Your task to perform on an android device: Go to internet settings Image 0: 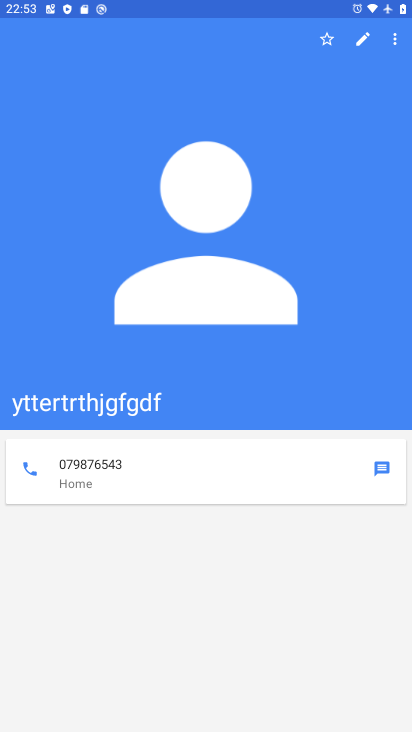
Step 0: press home button
Your task to perform on an android device: Go to internet settings Image 1: 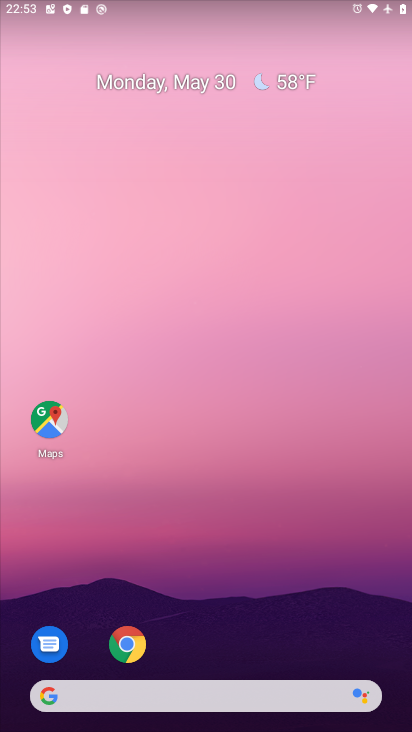
Step 1: drag from (394, 673) to (266, 143)
Your task to perform on an android device: Go to internet settings Image 2: 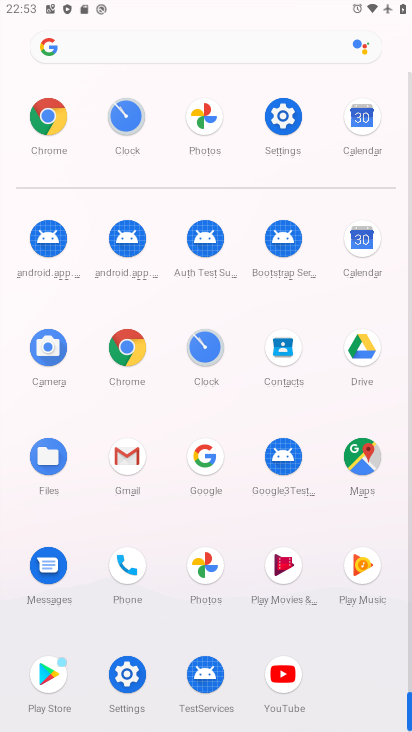
Step 2: click (126, 675)
Your task to perform on an android device: Go to internet settings Image 3: 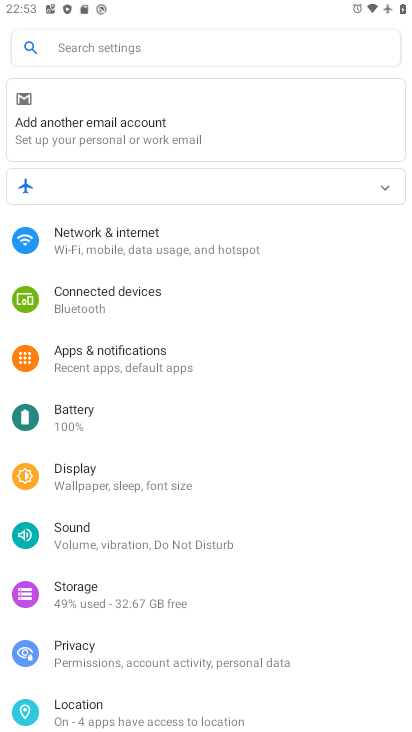
Step 3: click (115, 229)
Your task to perform on an android device: Go to internet settings Image 4: 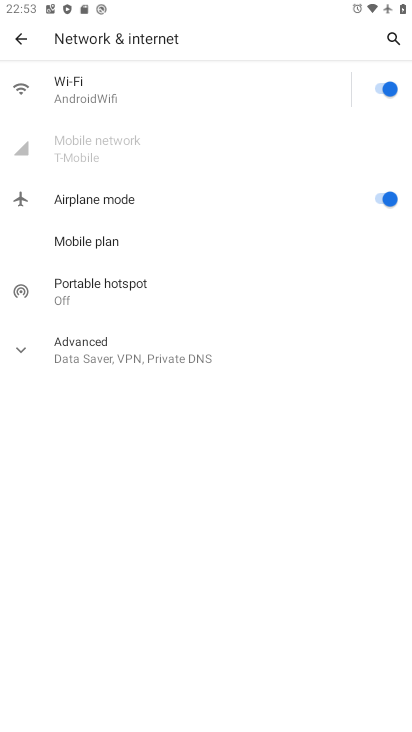
Step 4: click (24, 344)
Your task to perform on an android device: Go to internet settings Image 5: 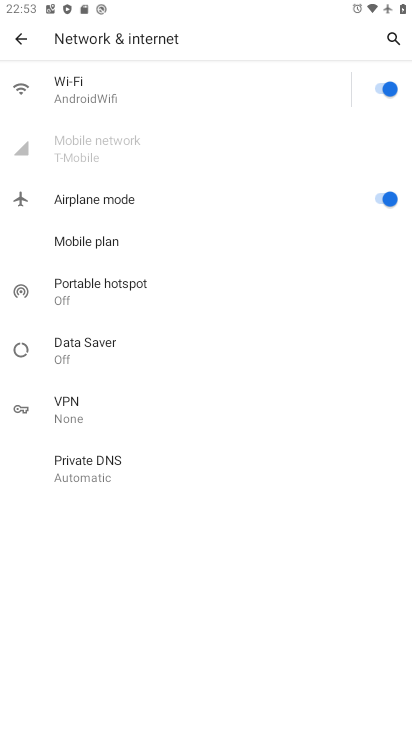
Step 5: task complete